Your task to perform on an android device: Empty the shopping cart on newegg.com. Search for lenovo thinkpad on newegg.com, select the first entry, add it to the cart, then select checkout. Image 0: 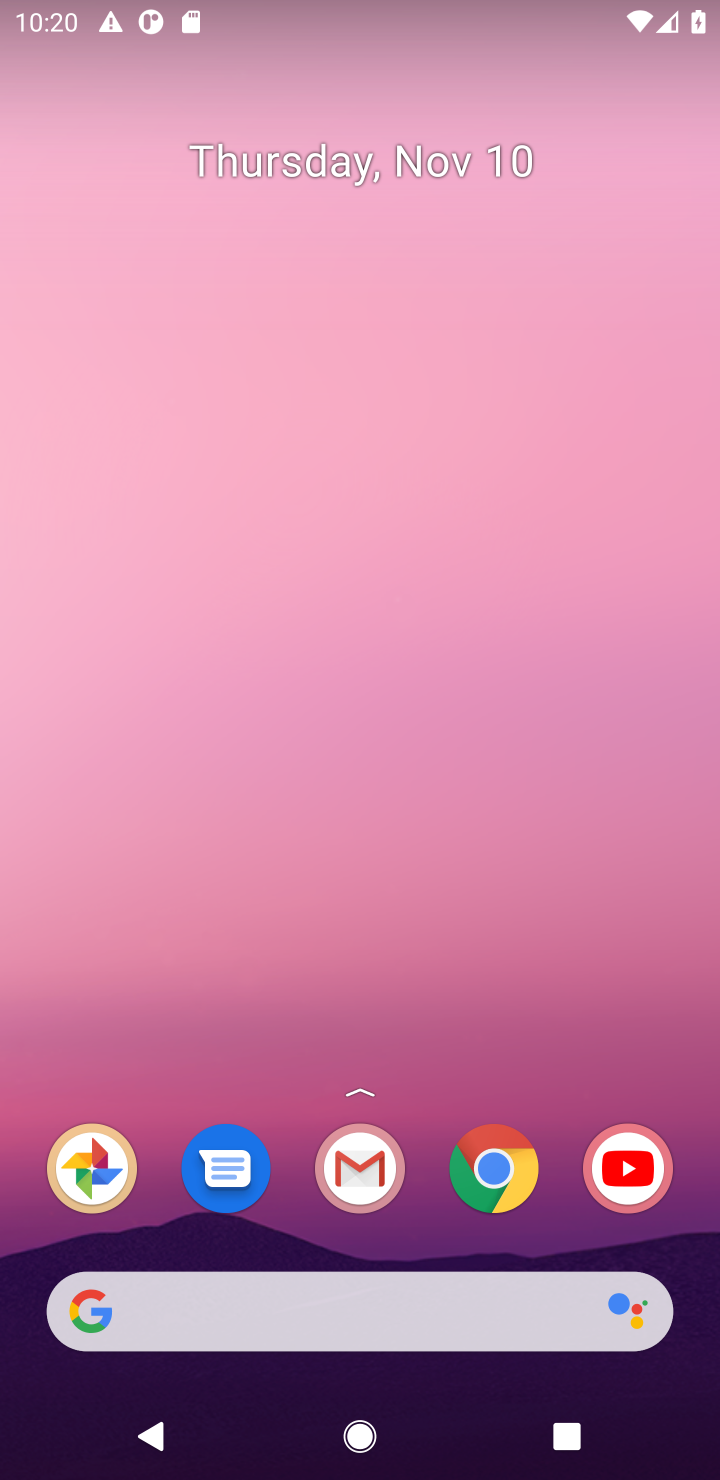
Step 0: click (499, 1153)
Your task to perform on an android device: Empty the shopping cart on newegg.com. Search for lenovo thinkpad on newegg.com, select the first entry, add it to the cart, then select checkout. Image 1: 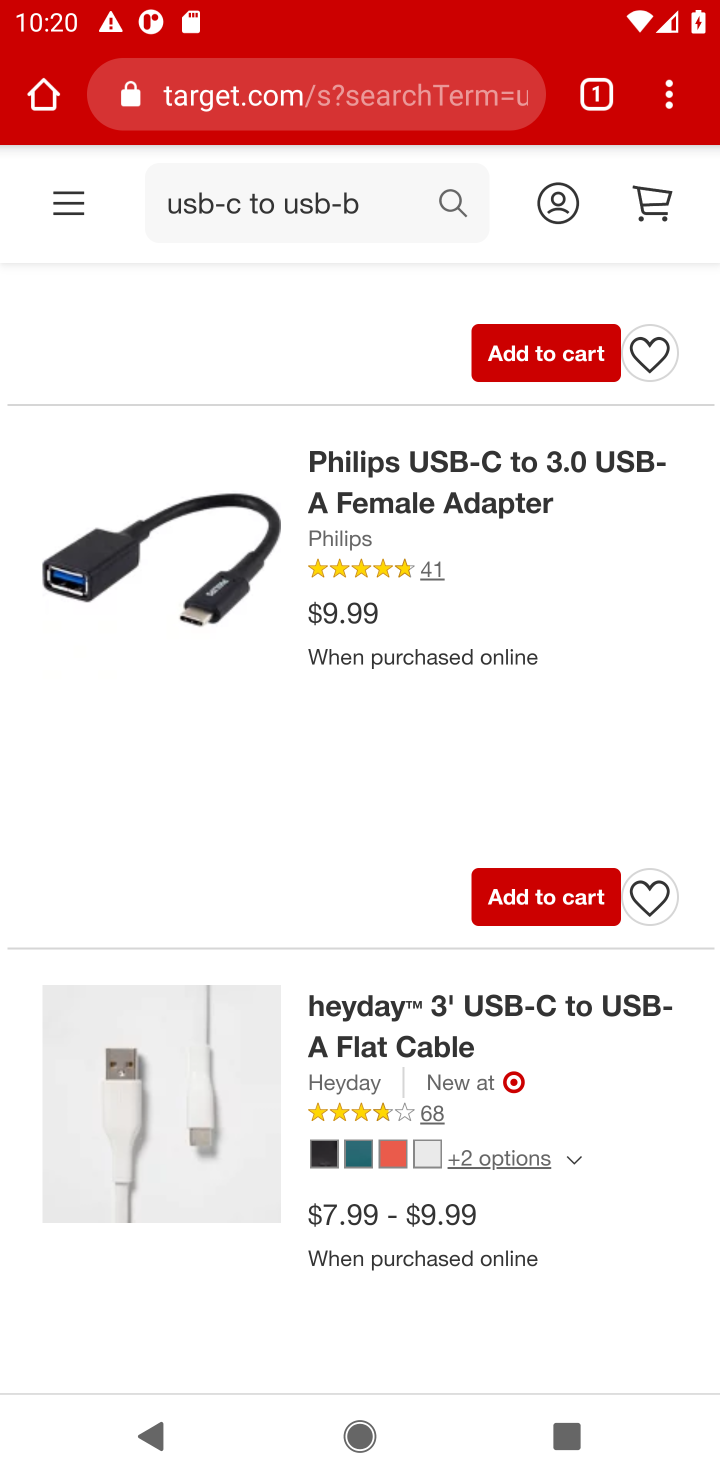
Step 1: click (267, 104)
Your task to perform on an android device: Empty the shopping cart on newegg.com. Search for lenovo thinkpad on newegg.com, select the first entry, add it to the cart, then select checkout. Image 2: 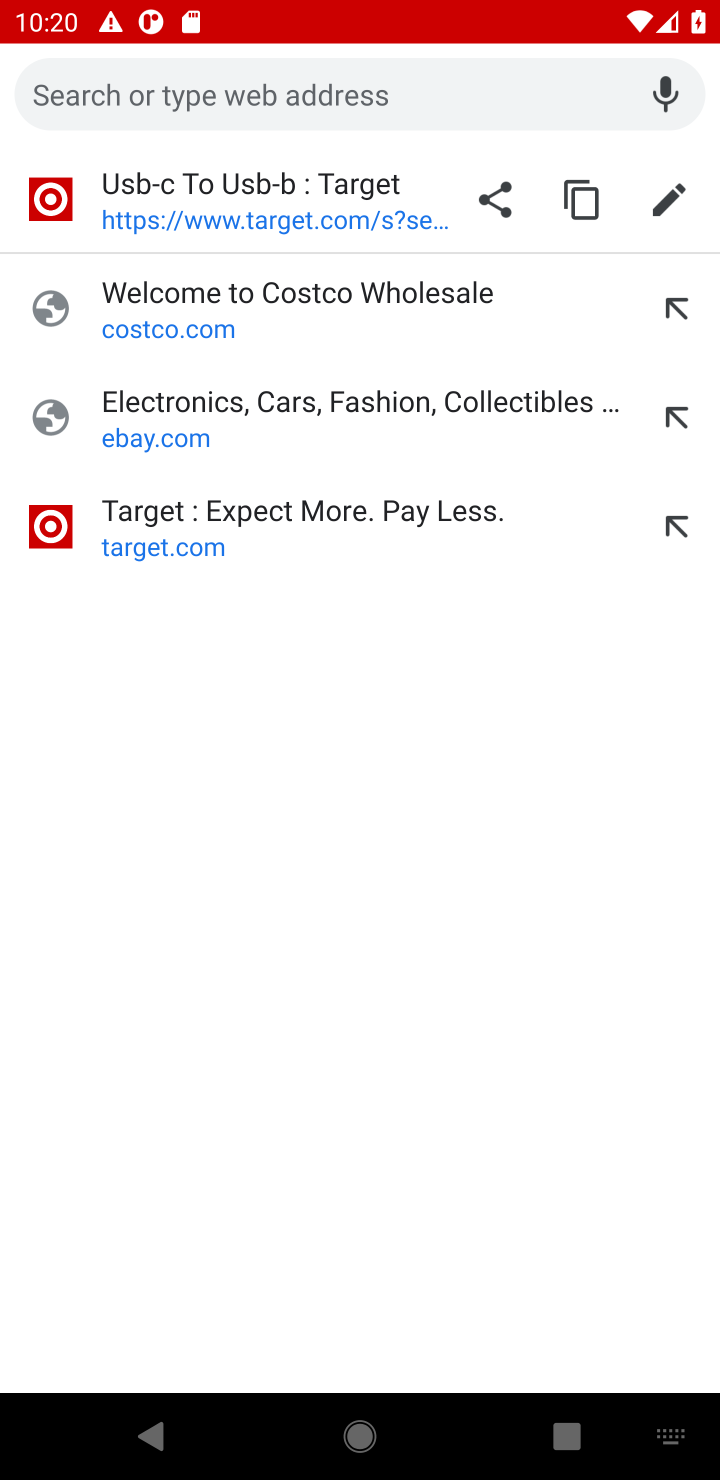
Step 2: type "newegg.com"
Your task to perform on an android device: Empty the shopping cart on newegg.com. Search for lenovo thinkpad on newegg.com, select the first entry, add it to the cart, then select checkout. Image 3: 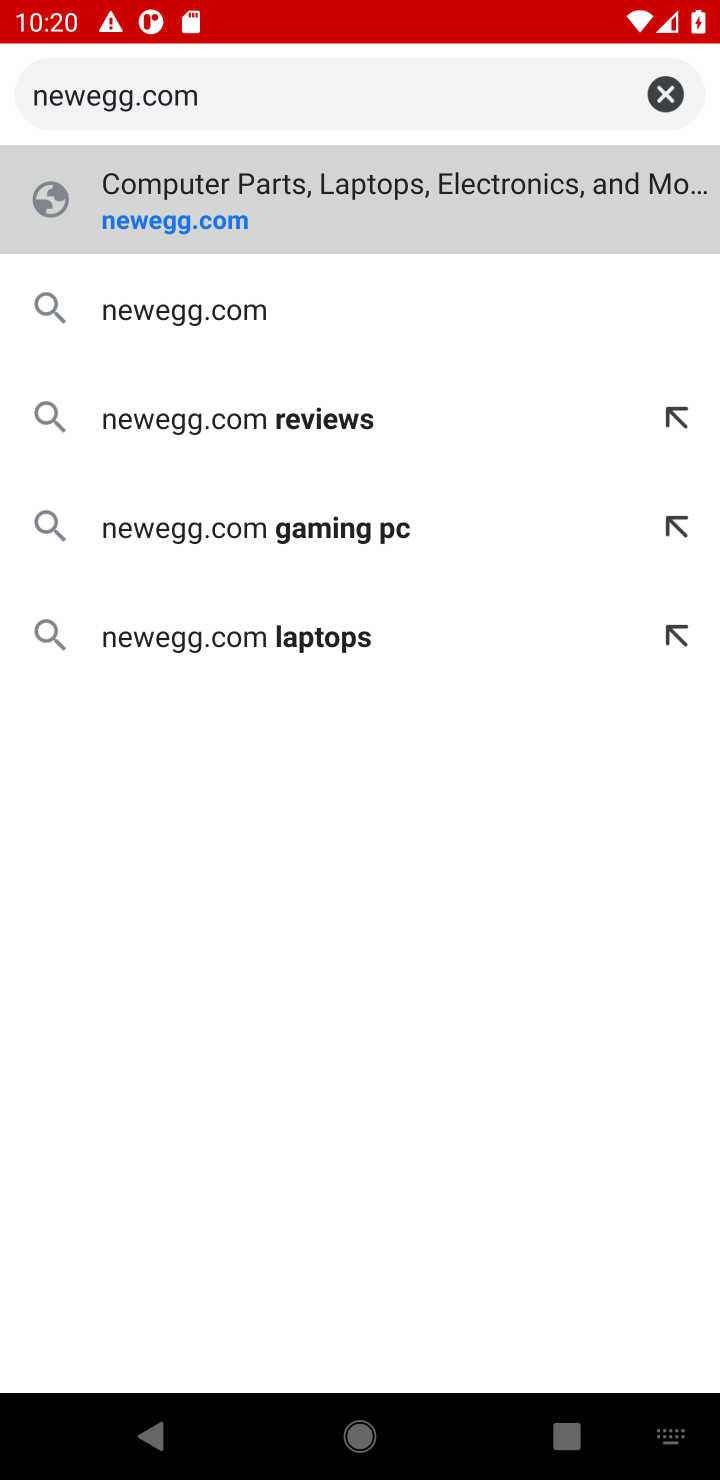
Step 3: click (146, 216)
Your task to perform on an android device: Empty the shopping cart on newegg.com. Search for lenovo thinkpad on newegg.com, select the first entry, add it to the cart, then select checkout. Image 4: 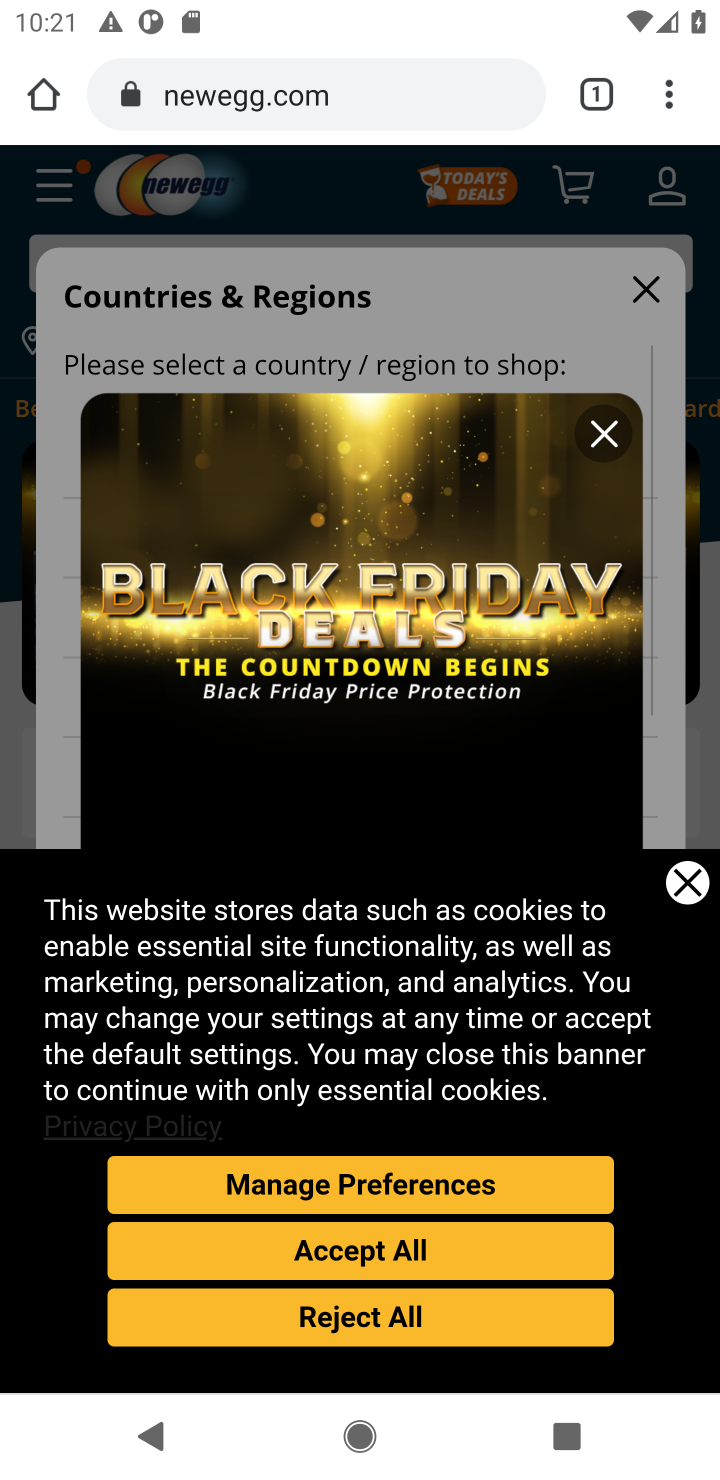
Step 4: click (609, 430)
Your task to perform on an android device: Empty the shopping cart on newegg.com. Search for lenovo thinkpad on newegg.com, select the first entry, add it to the cart, then select checkout. Image 5: 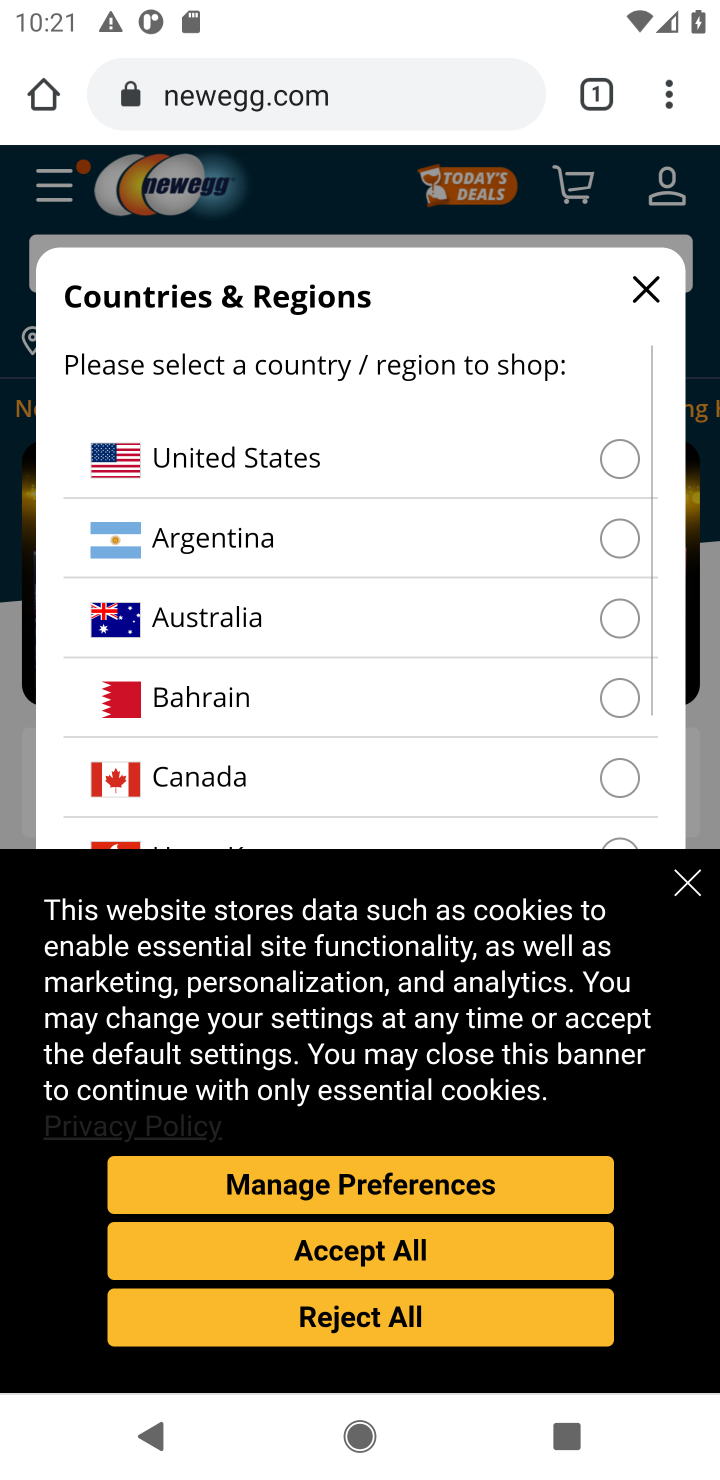
Step 5: click (680, 890)
Your task to perform on an android device: Empty the shopping cart on newegg.com. Search for lenovo thinkpad on newegg.com, select the first entry, add it to the cart, then select checkout. Image 6: 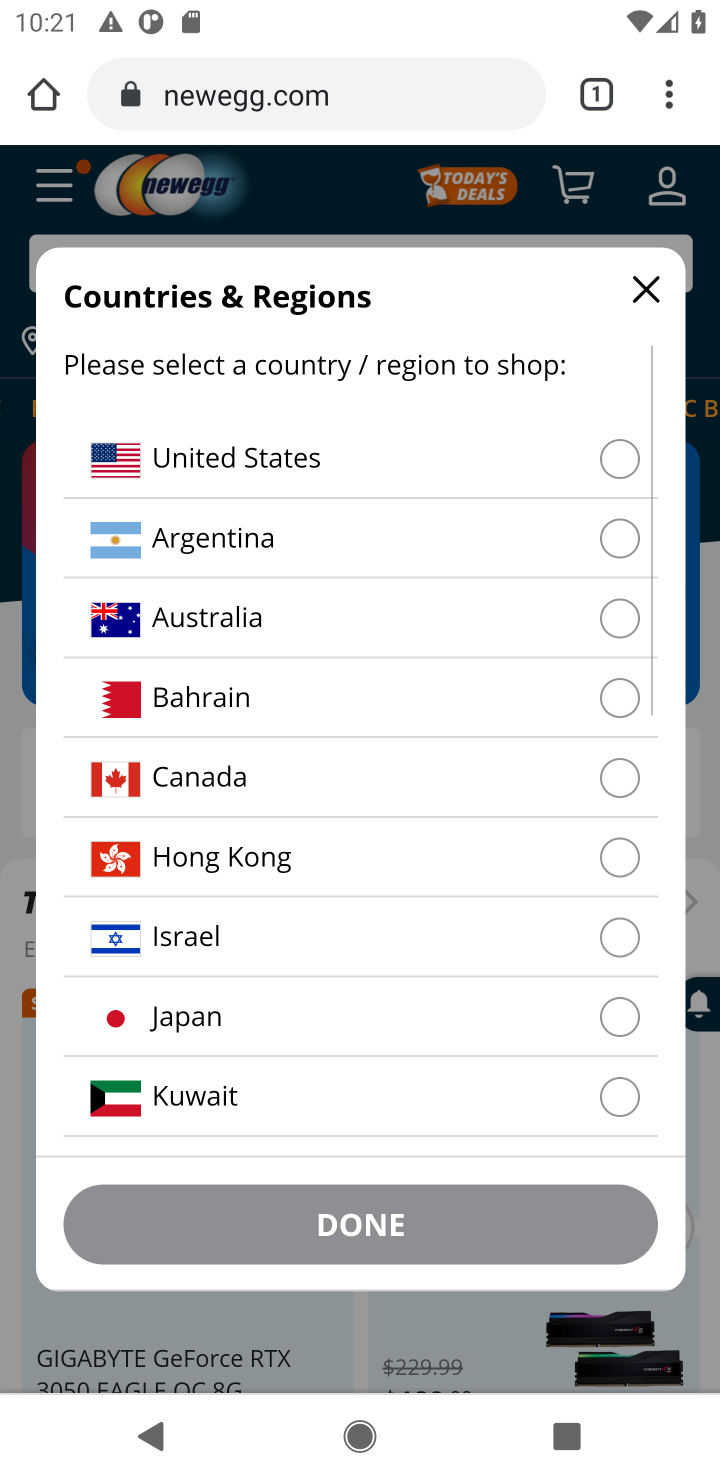
Step 6: click (226, 467)
Your task to perform on an android device: Empty the shopping cart on newegg.com. Search for lenovo thinkpad on newegg.com, select the first entry, add it to the cart, then select checkout. Image 7: 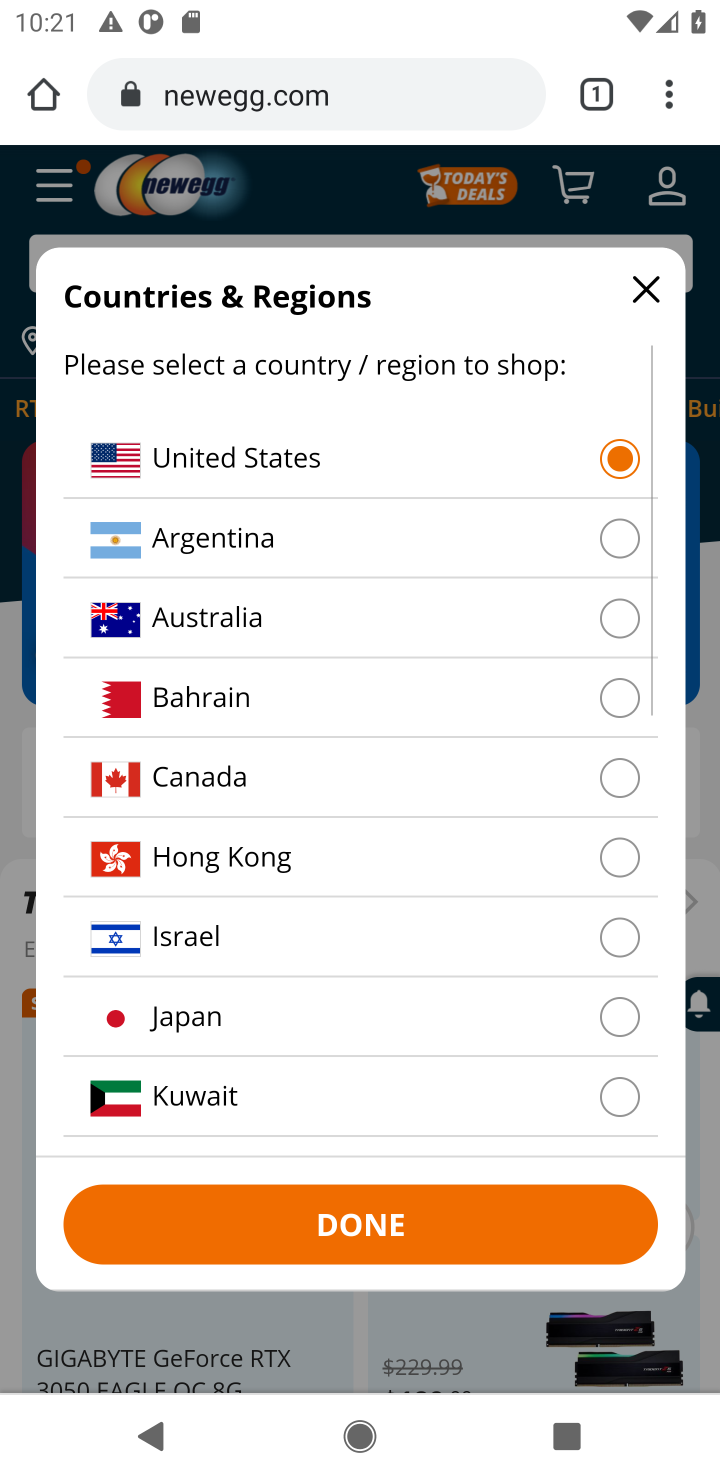
Step 7: click (350, 1209)
Your task to perform on an android device: Empty the shopping cart on newegg.com. Search for lenovo thinkpad on newegg.com, select the first entry, add it to the cart, then select checkout. Image 8: 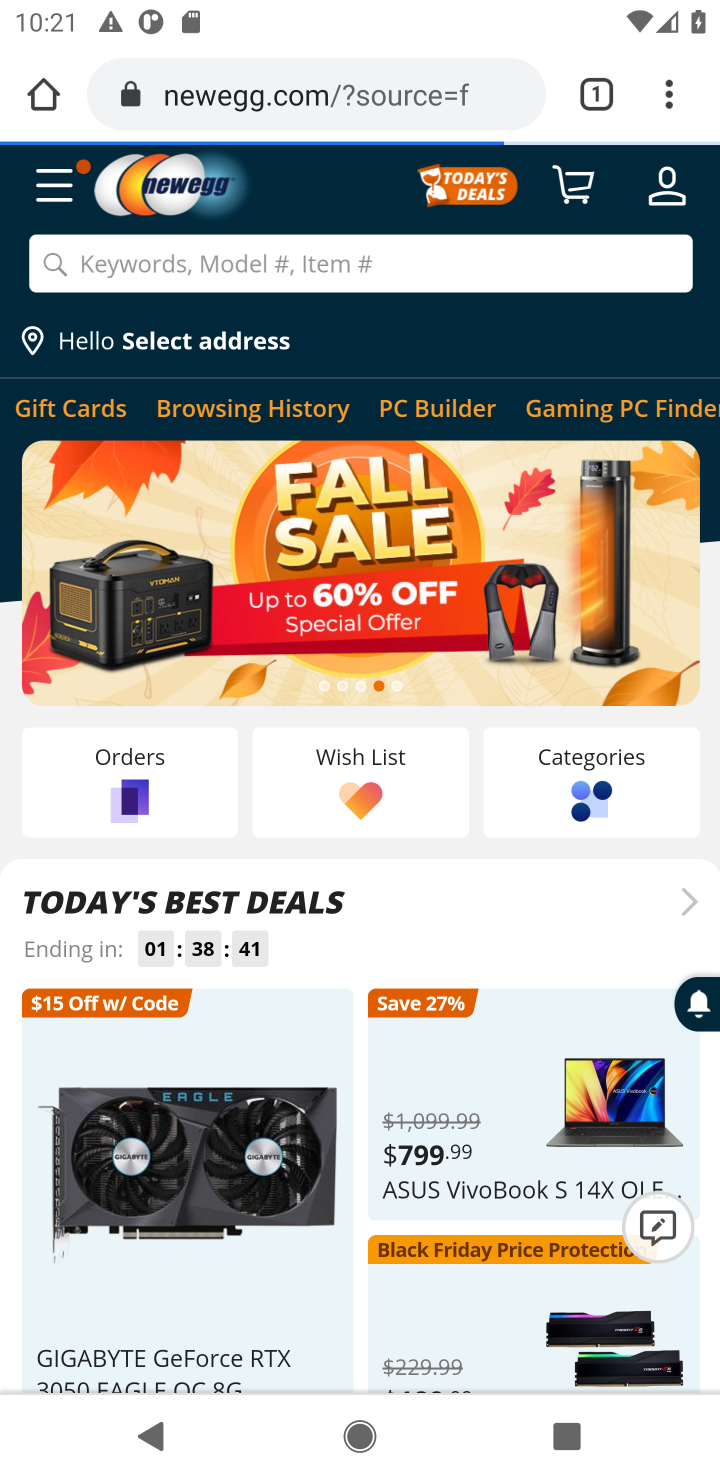
Step 8: click (581, 197)
Your task to perform on an android device: Empty the shopping cart on newegg.com. Search for lenovo thinkpad on newegg.com, select the first entry, add it to the cart, then select checkout. Image 9: 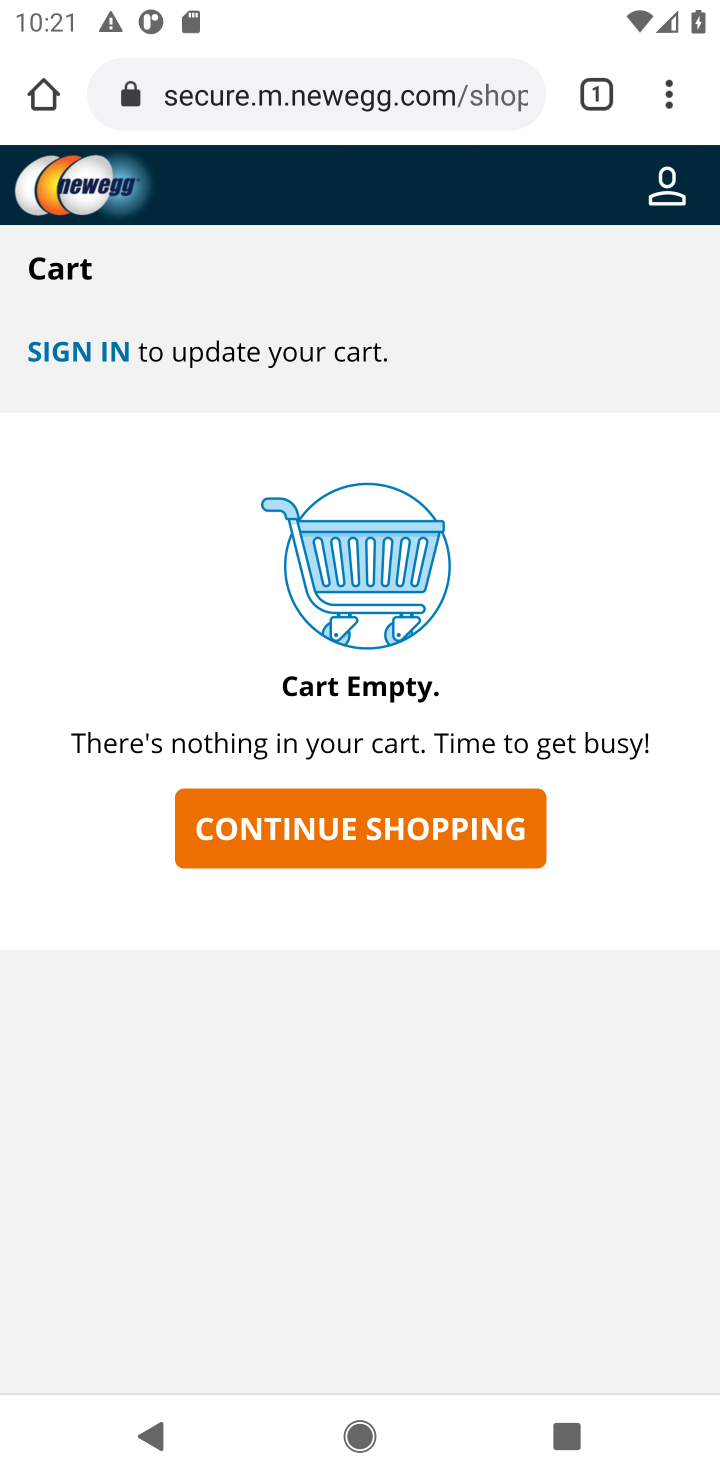
Step 9: click (339, 830)
Your task to perform on an android device: Empty the shopping cart on newegg.com. Search for lenovo thinkpad on newegg.com, select the first entry, add it to the cart, then select checkout. Image 10: 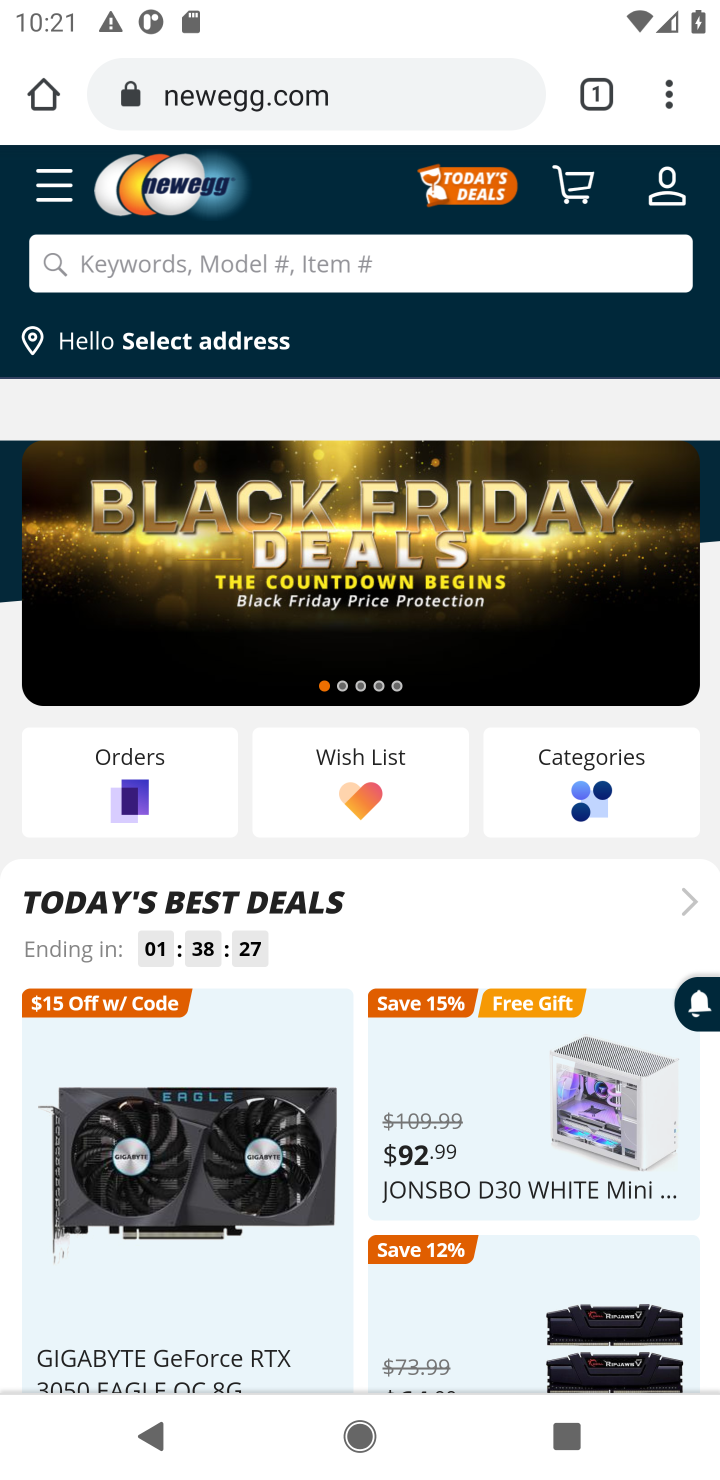
Step 10: click (232, 277)
Your task to perform on an android device: Empty the shopping cart on newegg.com. Search for lenovo thinkpad on newegg.com, select the first entry, add it to the cart, then select checkout. Image 11: 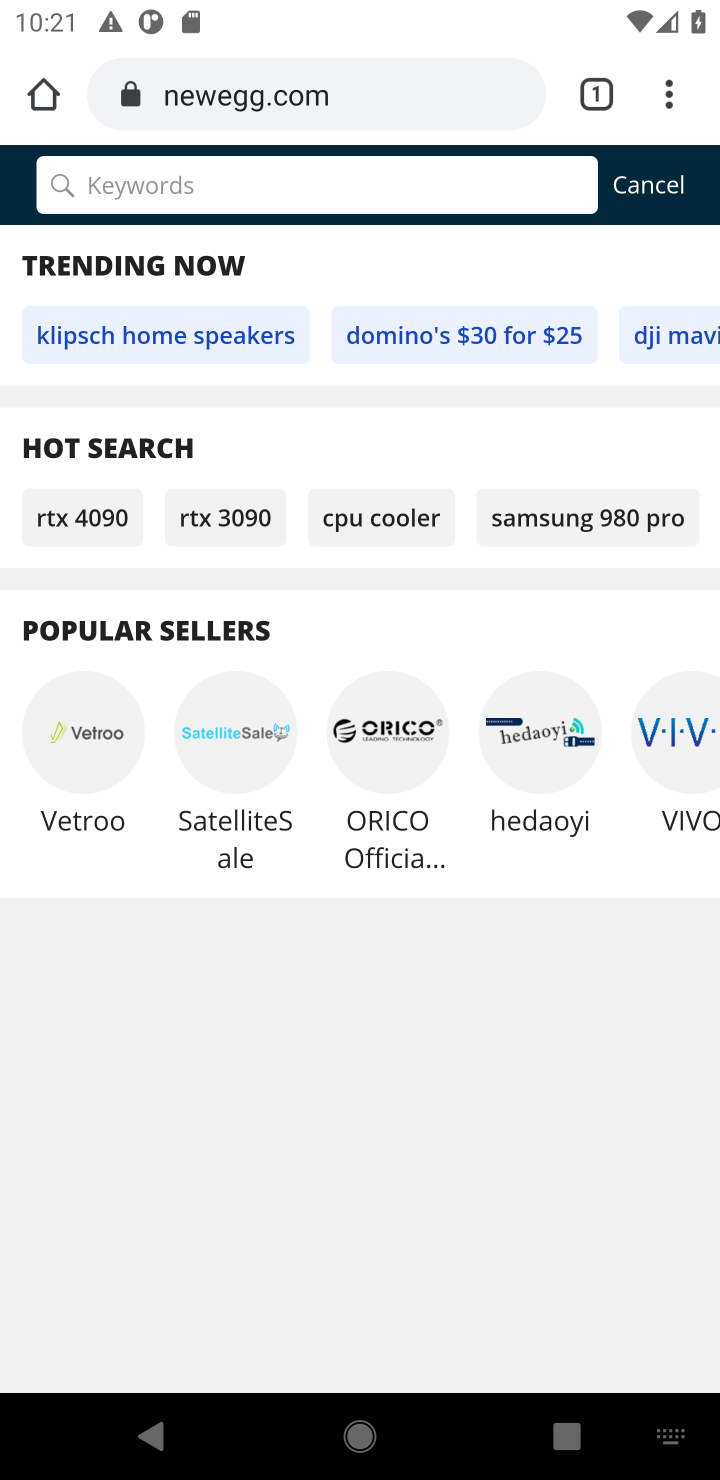
Step 11: type "lenovo thinkpad "
Your task to perform on an android device: Empty the shopping cart on newegg.com. Search for lenovo thinkpad on newegg.com, select the first entry, add it to the cart, then select checkout. Image 12: 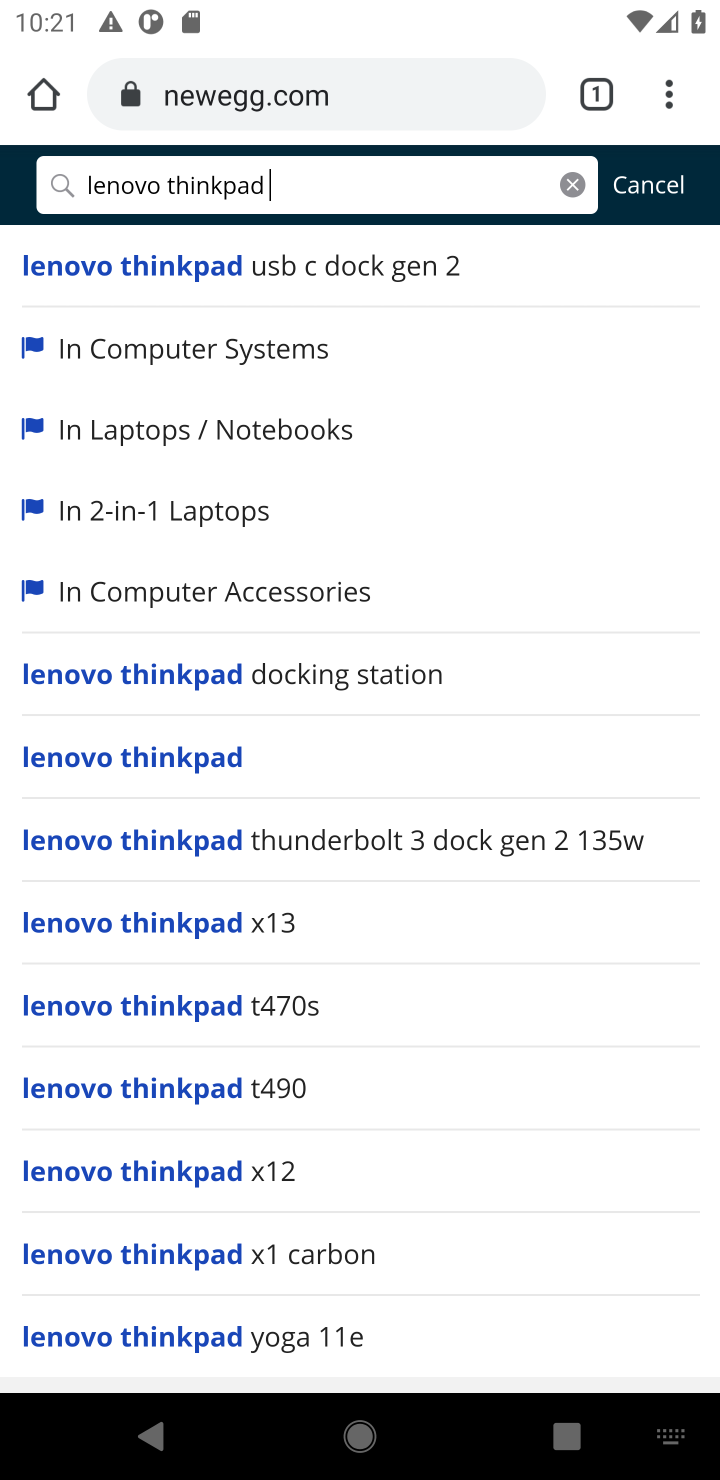
Step 12: click (157, 761)
Your task to perform on an android device: Empty the shopping cart on newegg.com. Search for lenovo thinkpad on newegg.com, select the first entry, add it to the cart, then select checkout. Image 13: 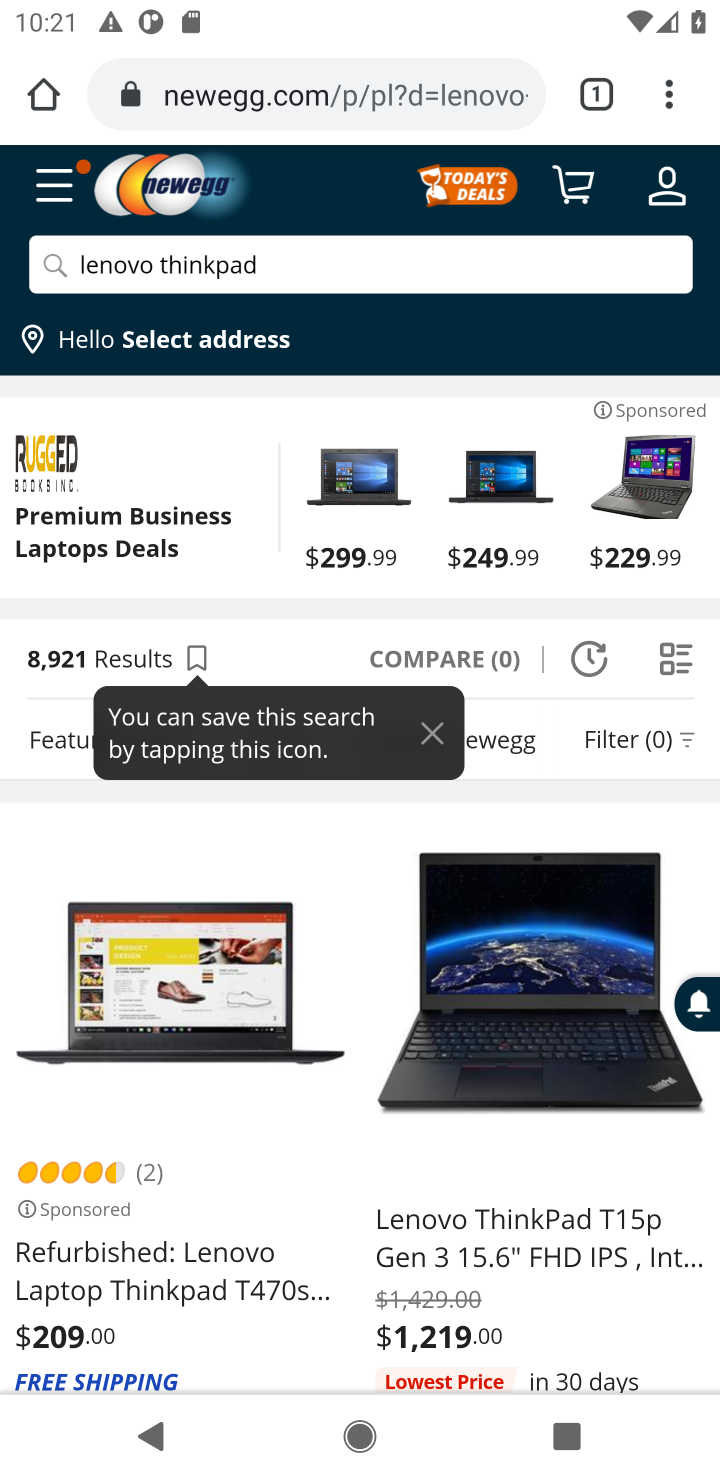
Step 13: drag from (214, 1028) to (176, 658)
Your task to perform on an android device: Empty the shopping cart on newegg.com. Search for lenovo thinkpad on newegg.com, select the first entry, add it to the cart, then select checkout. Image 14: 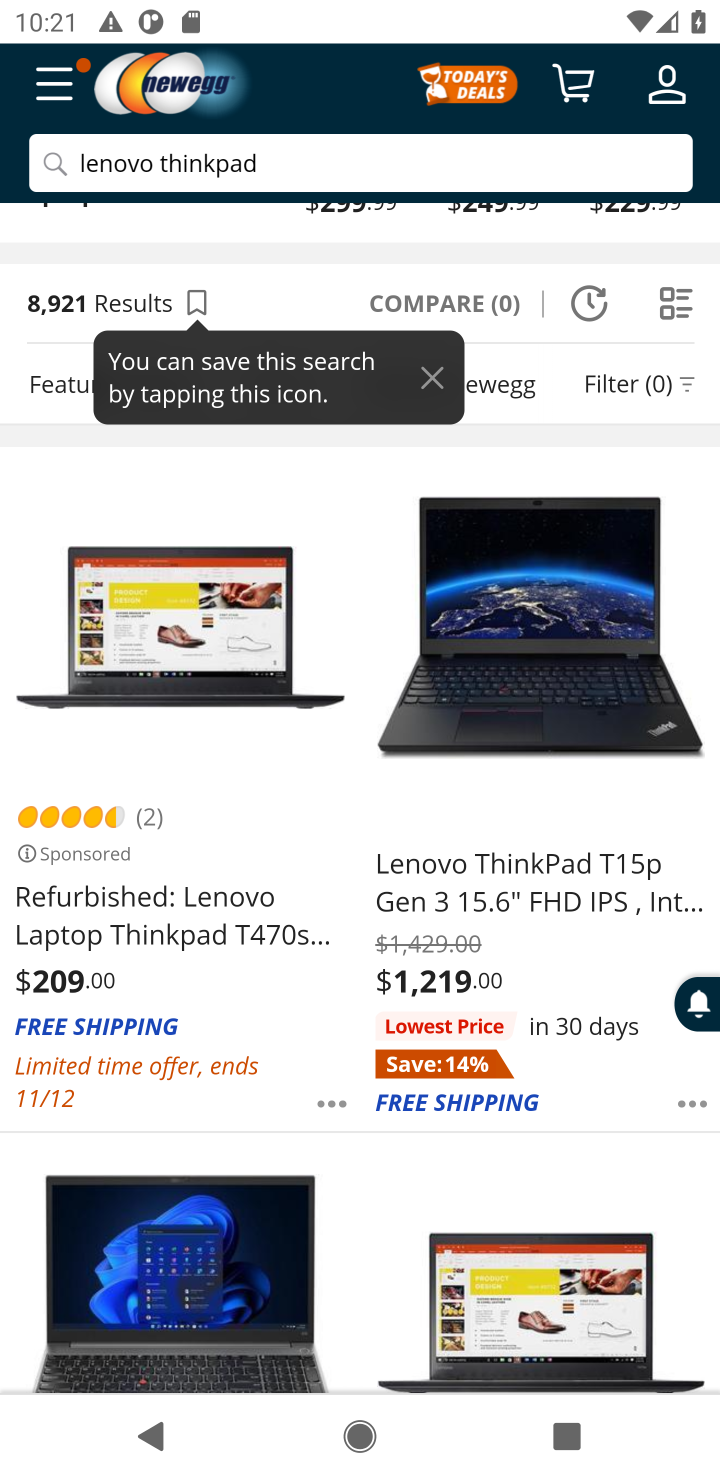
Step 14: click (133, 713)
Your task to perform on an android device: Empty the shopping cart on newegg.com. Search for lenovo thinkpad on newegg.com, select the first entry, add it to the cart, then select checkout. Image 15: 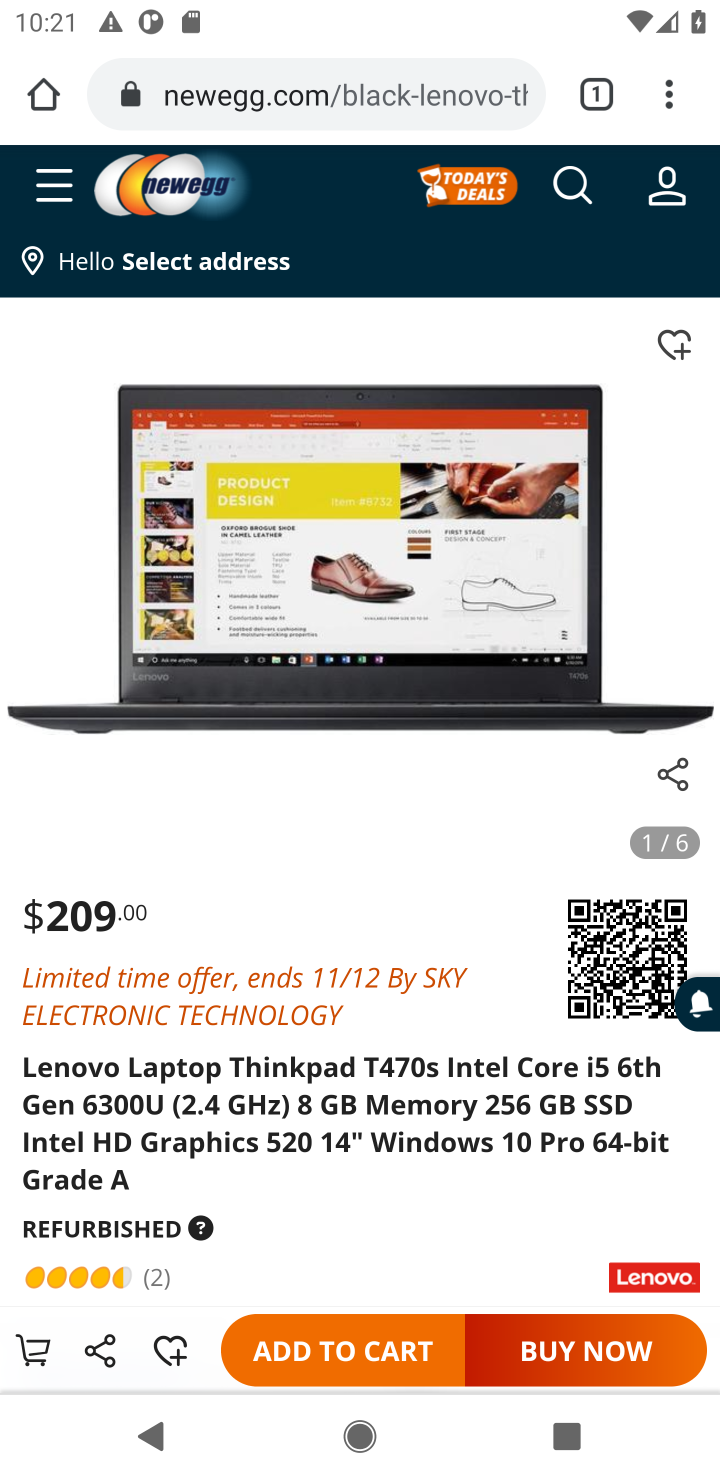
Step 15: click (305, 1354)
Your task to perform on an android device: Empty the shopping cart on newegg.com. Search for lenovo thinkpad on newegg.com, select the first entry, add it to the cart, then select checkout. Image 16: 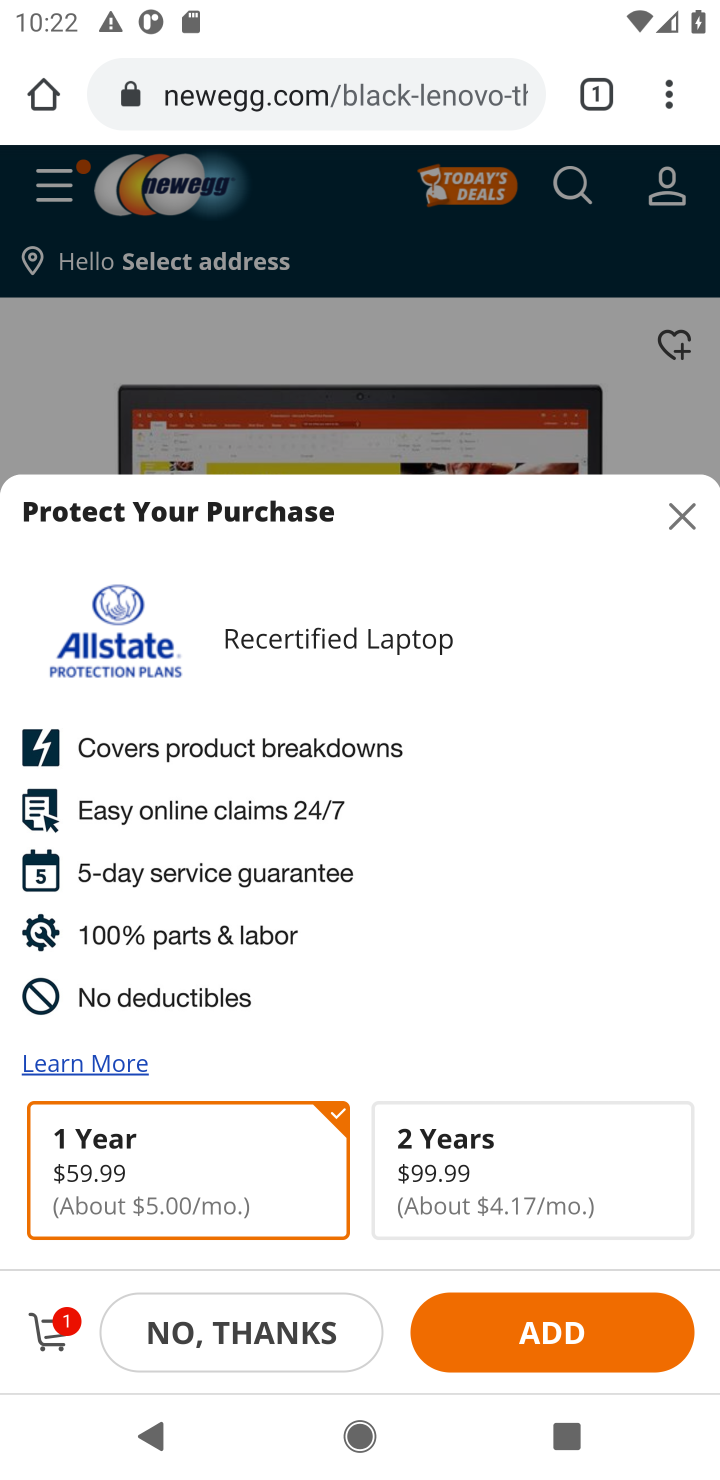
Step 16: click (41, 1338)
Your task to perform on an android device: Empty the shopping cart on newegg.com. Search for lenovo thinkpad on newegg.com, select the first entry, add it to the cart, then select checkout. Image 17: 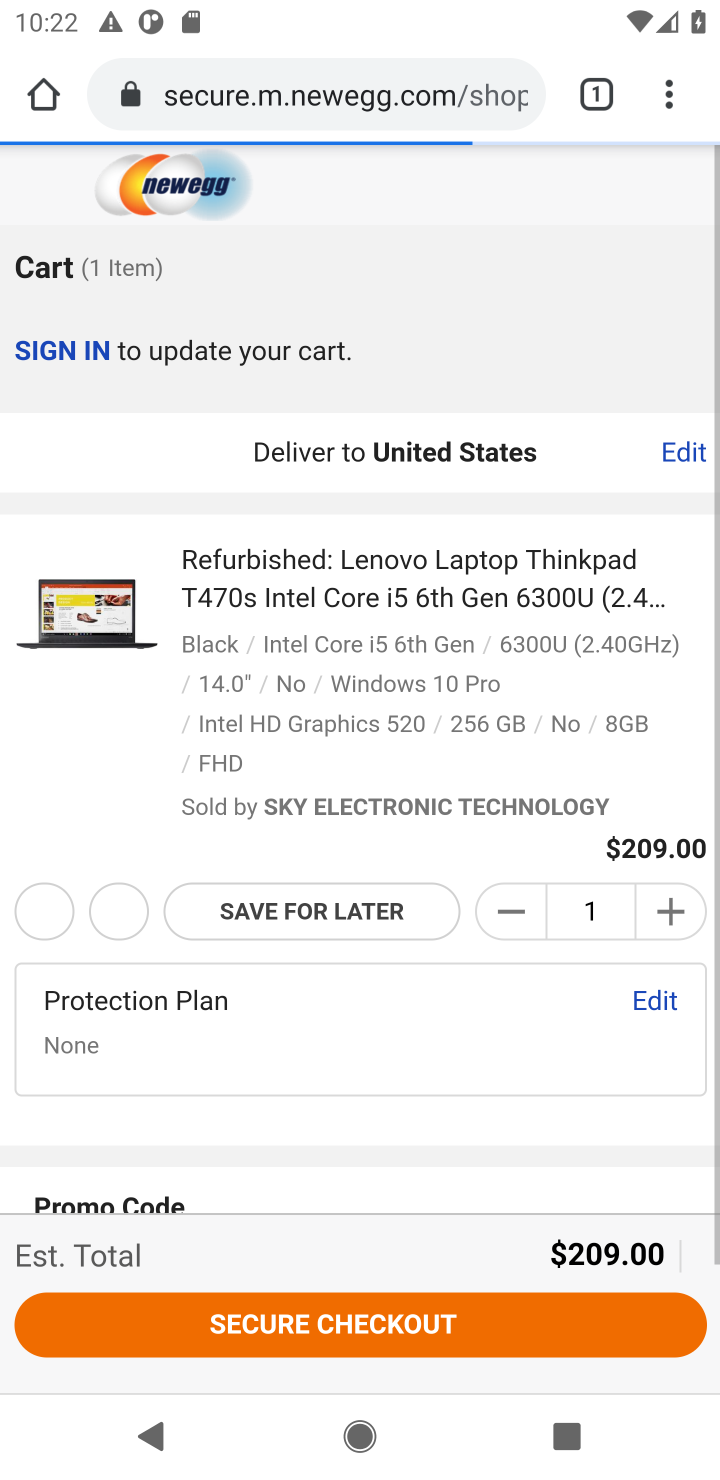
Step 17: click (239, 1330)
Your task to perform on an android device: Empty the shopping cart on newegg.com. Search for lenovo thinkpad on newegg.com, select the first entry, add it to the cart, then select checkout. Image 18: 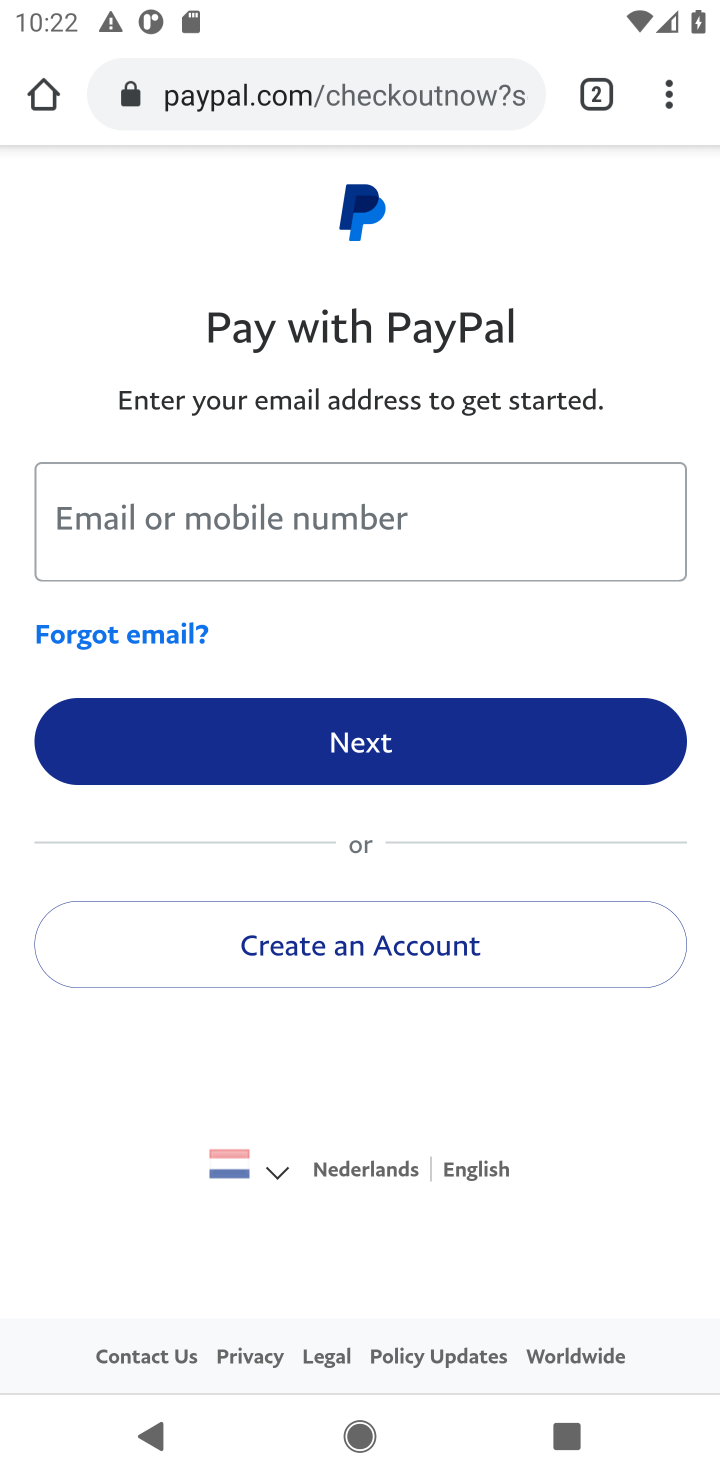
Step 18: task complete